Your task to perform on an android device: Open battery settings Image 0: 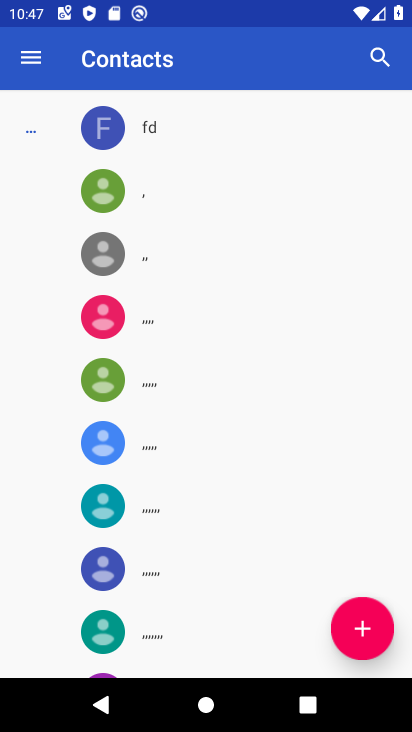
Step 0: press home button
Your task to perform on an android device: Open battery settings Image 1: 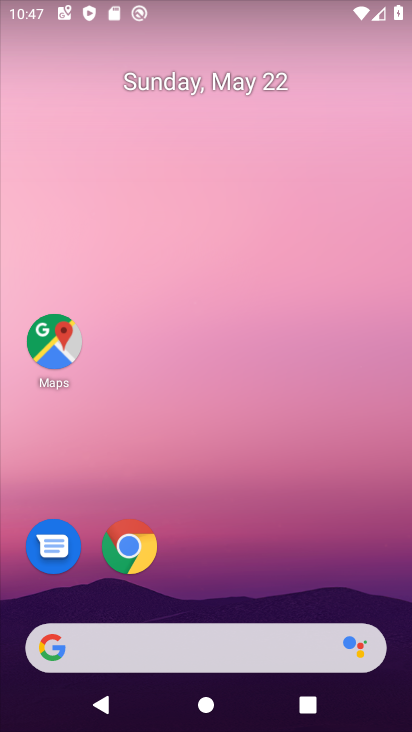
Step 1: drag from (195, 575) to (162, 1)
Your task to perform on an android device: Open battery settings Image 2: 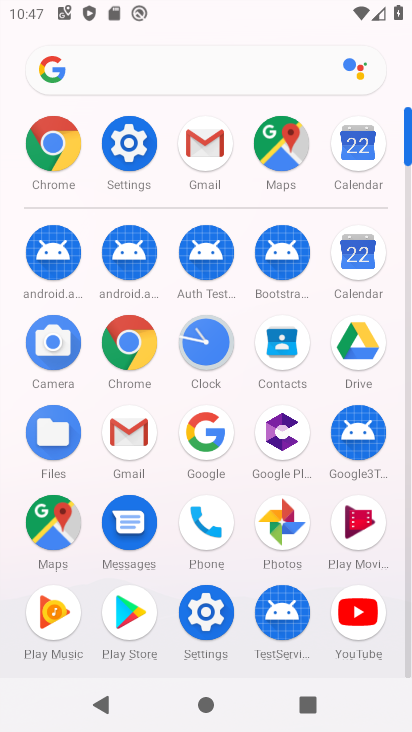
Step 2: click (140, 158)
Your task to perform on an android device: Open battery settings Image 3: 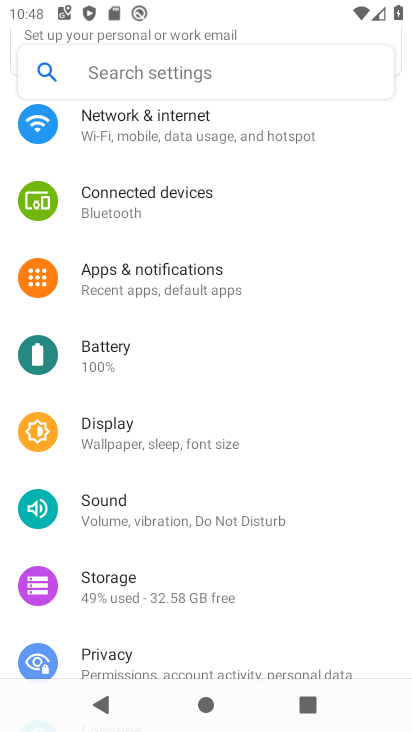
Step 3: click (124, 351)
Your task to perform on an android device: Open battery settings Image 4: 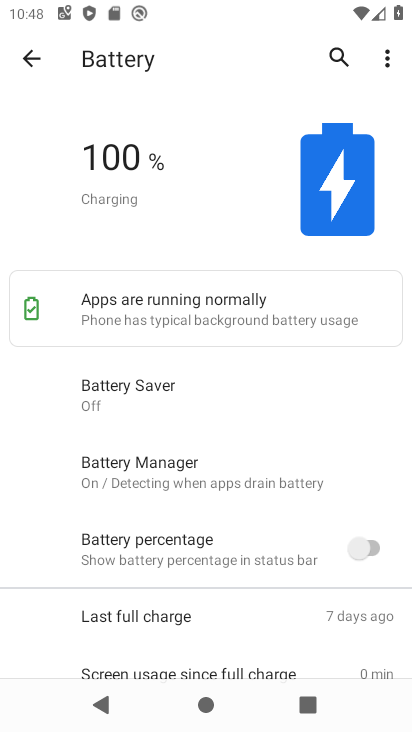
Step 4: task complete